Your task to perform on an android device: check data usage Image 0: 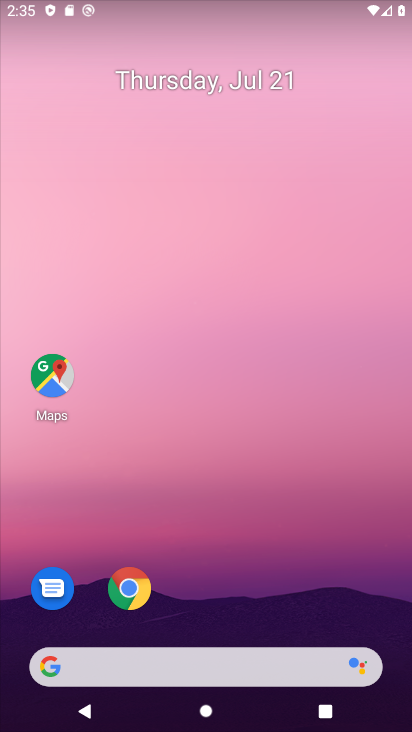
Step 0: drag from (269, 547) to (176, 108)
Your task to perform on an android device: check data usage Image 1: 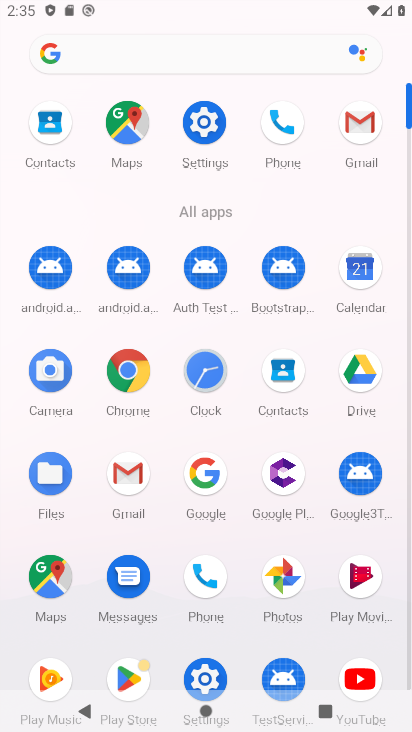
Step 1: click (207, 119)
Your task to perform on an android device: check data usage Image 2: 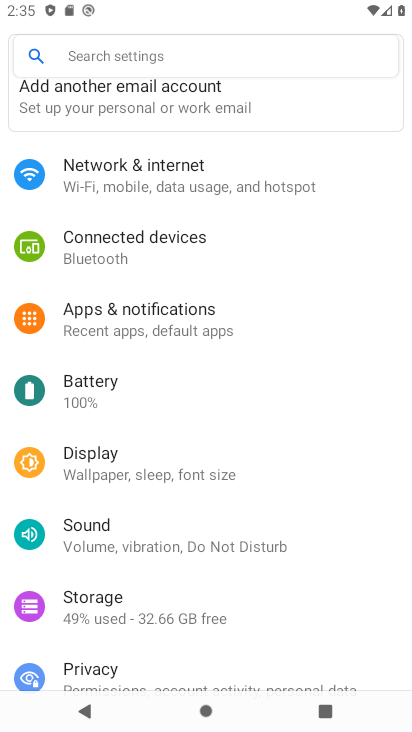
Step 2: click (147, 168)
Your task to perform on an android device: check data usage Image 3: 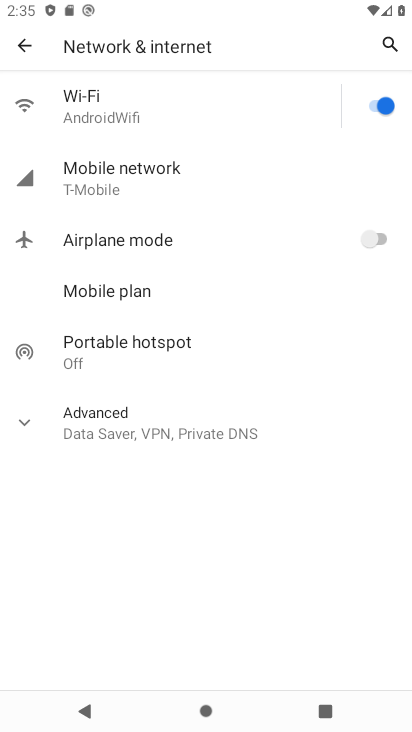
Step 3: click (116, 170)
Your task to perform on an android device: check data usage Image 4: 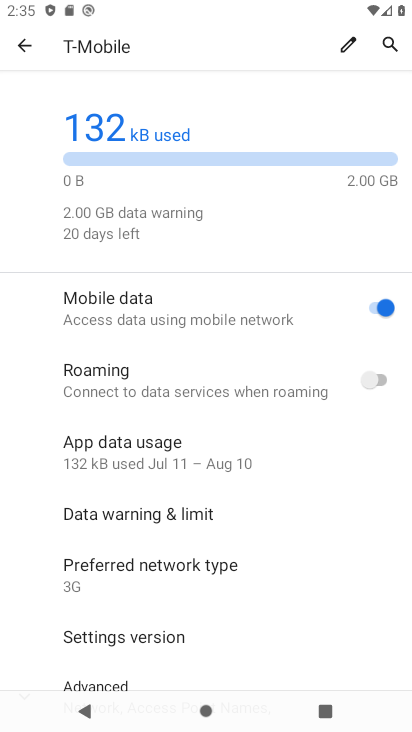
Step 4: task complete